Your task to perform on an android device: toggle javascript in the chrome app Image 0: 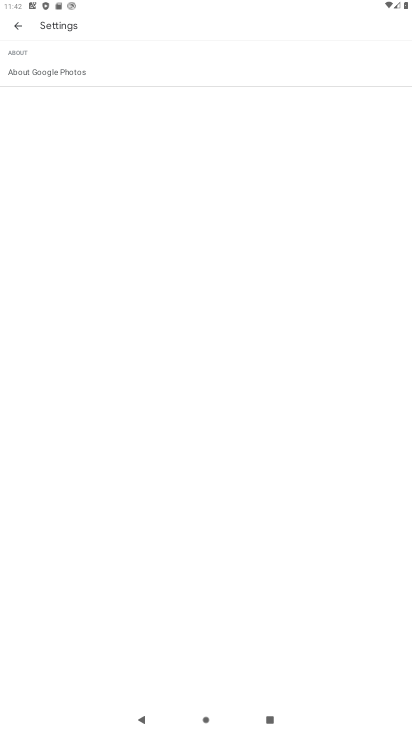
Step 0: press home button
Your task to perform on an android device: toggle javascript in the chrome app Image 1: 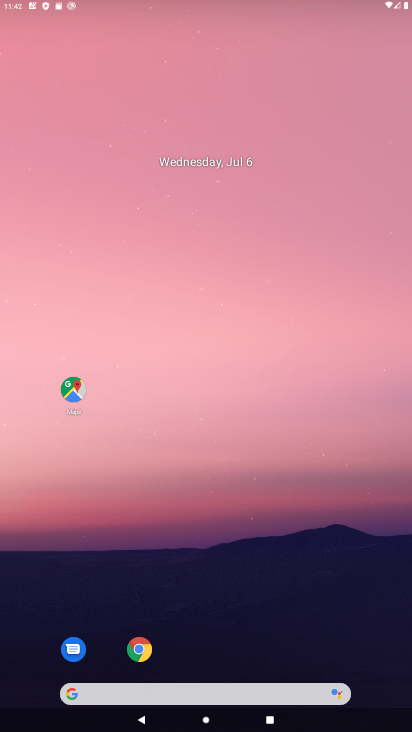
Step 1: drag from (354, 661) to (265, 19)
Your task to perform on an android device: toggle javascript in the chrome app Image 2: 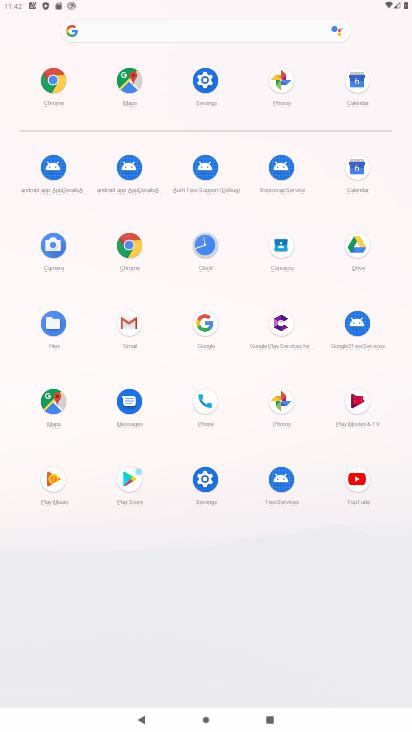
Step 2: click (39, 84)
Your task to perform on an android device: toggle javascript in the chrome app Image 3: 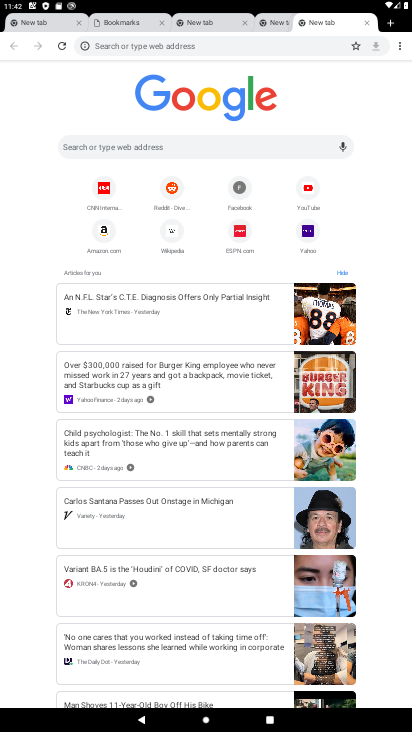
Step 3: click (396, 44)
Your task to perform on an android device: toggle javascript in the chrome app Image 4: 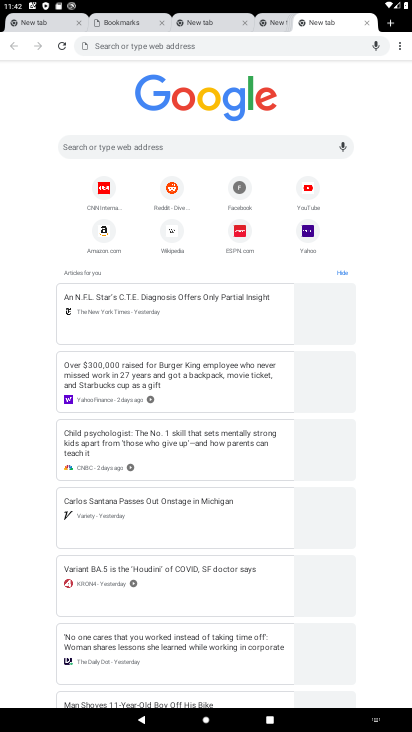
Step 4: click (396, 41)
Your task to perform on an android device: toggle javascript in the chrome app Image 5: 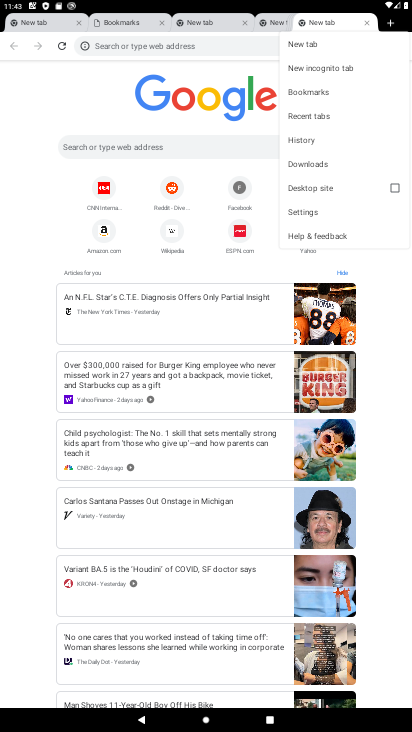
Step 5: click (312, 217)
Your task to perform on an android device: toggle javascript in the chrome app Image 6: 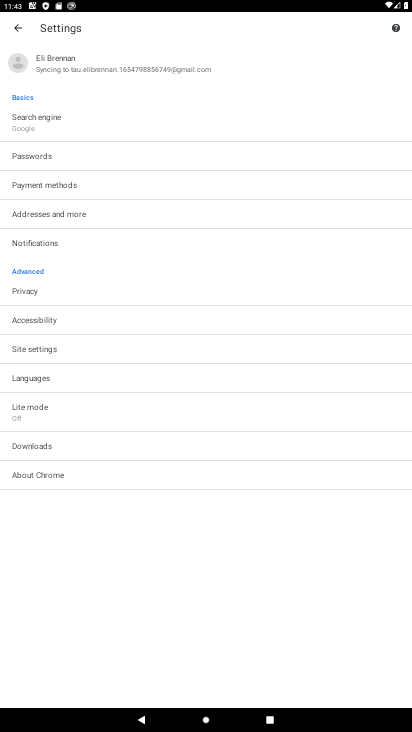
Step 6: click (97, 358)
Your task to perform on an android device: toggle javascript in the chrome app Image 7: 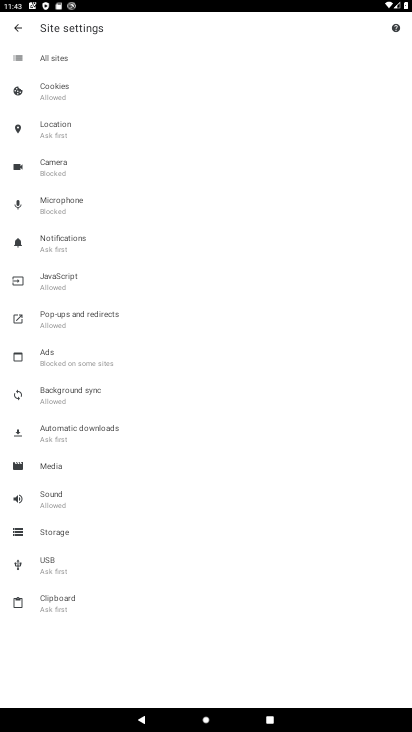
Step 7: click (88, 280)
Your task to perform on an android device: toggle javascript in the chrome app Image 8: 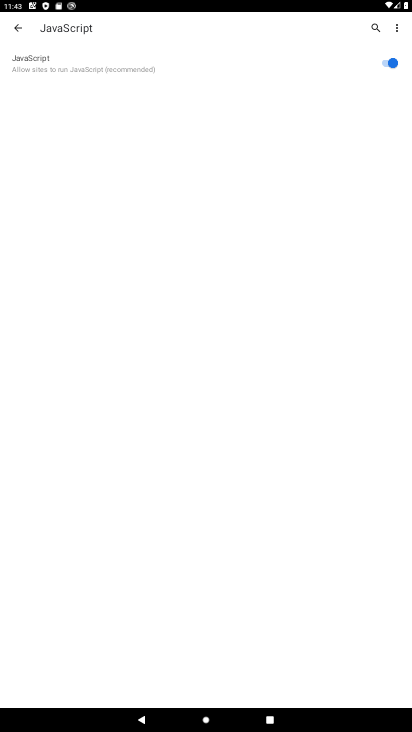
Step 8: click (382, 68)
Your task to perform on an android device: toggle javascript in the chrome app Image 9: 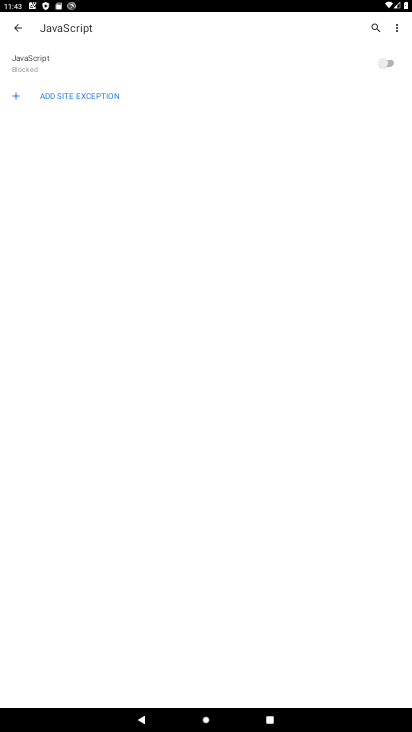
Step 9: task complete